Your task to perform on an android device: Go to calendar. Show me events next week Image 0: 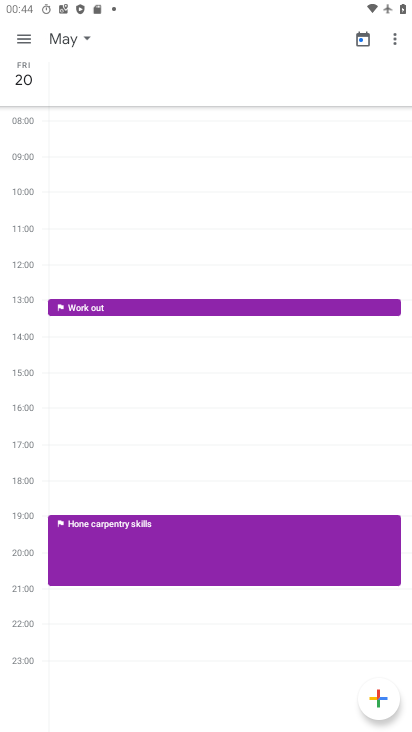
Step 0: press home button
Your task to perform on an android device: Go to calendar. Show me events next week Image 1: 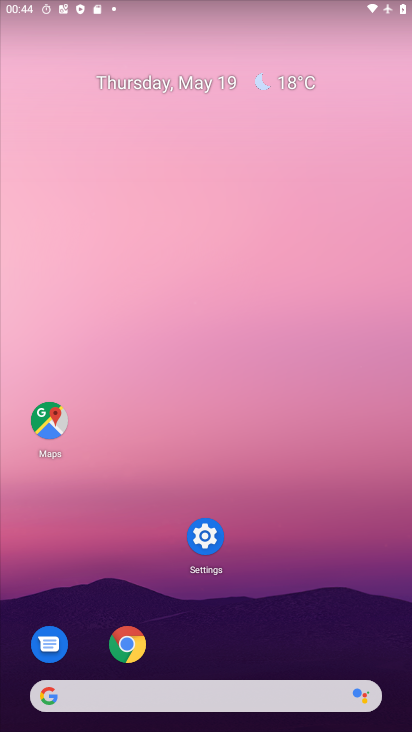
Step 1: drag from (324, 568) to (238, 210)
Your task to perform on an android device: Go to calendar. Show me events next week Image 2: 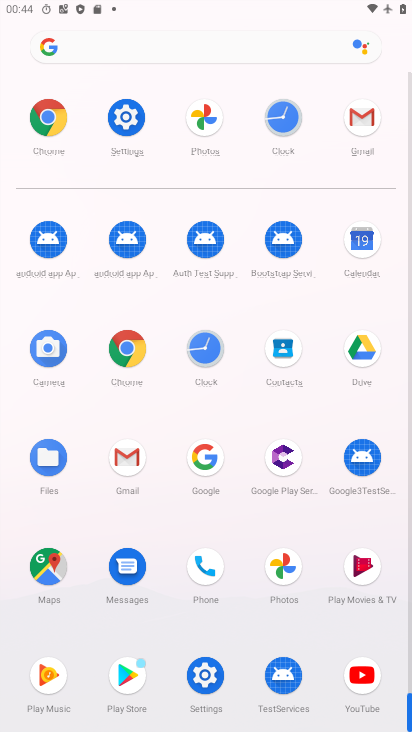
Step 2: click (367, 244)
Your task to perform on an android device: Go to calendar. Show me events next week Image 3: 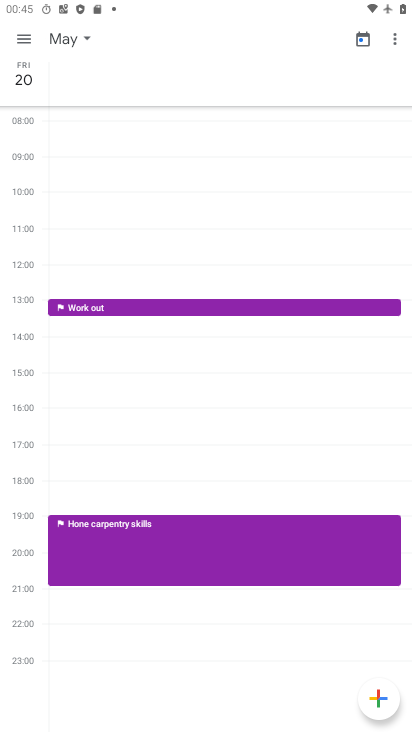
Step 3: click (71, 36)
Your task to perform on an android device: Go to calendar. Show me events next week Image 4: 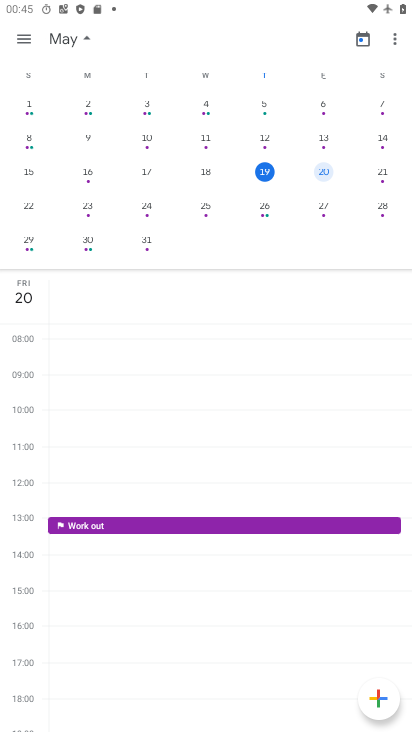
Step 4: drag from (374, 198) to (100, 155)
Your task to perform on an android device: Go to calendar. Show me events next week Image 5: 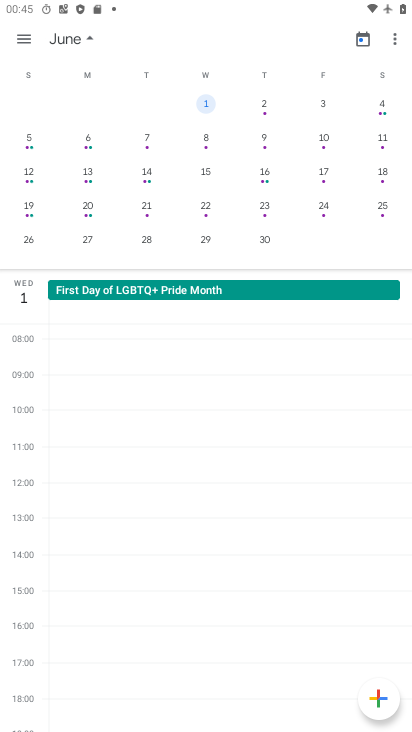
Step 5: drag from (56, 180) to (411, 203)
Your task to perform on an android device: Go to calendar. Show me events next week Image 6: 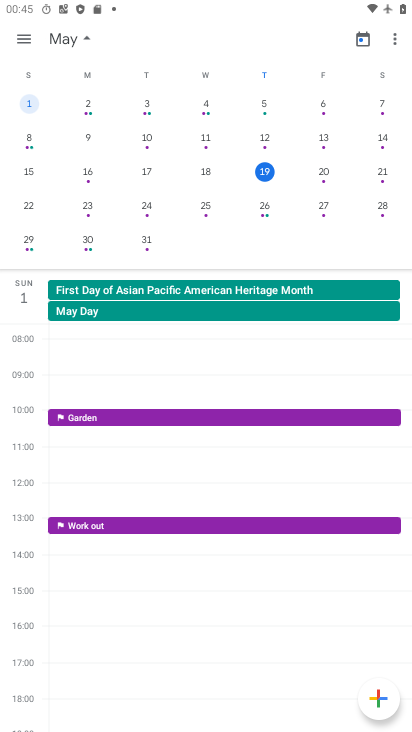
Step 6: click (146, 213)
Your task to perform on an android device: Go to calendar. Show me events next week Image 7: 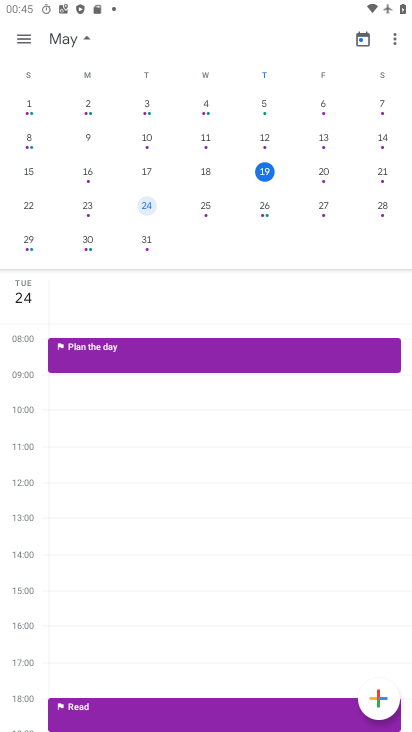
Step 7: click (25, 45)
Your task to perform on an android device: Go to calendar. Show me events next week Image 8: 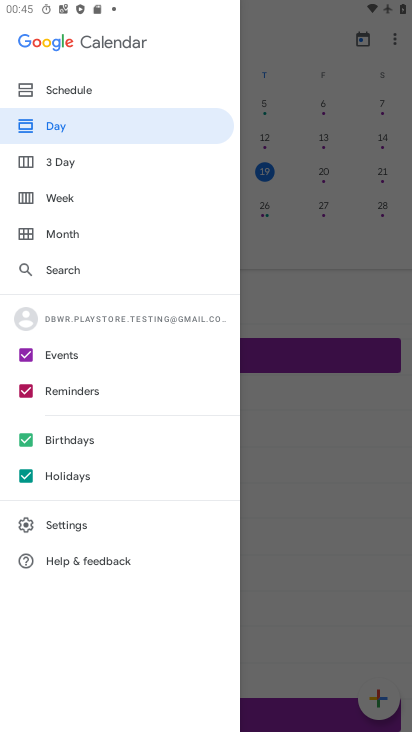
Step 8: click (77, 206)
Your task to perform on an android device: Go to calendar. Show me events next week Image 9: 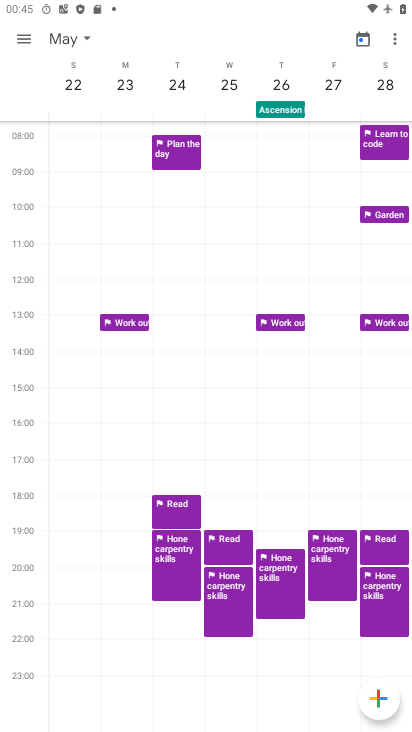
Step 9: task complete